Your task to perform on an android device: turn on data saver in the chrome app Image 0: 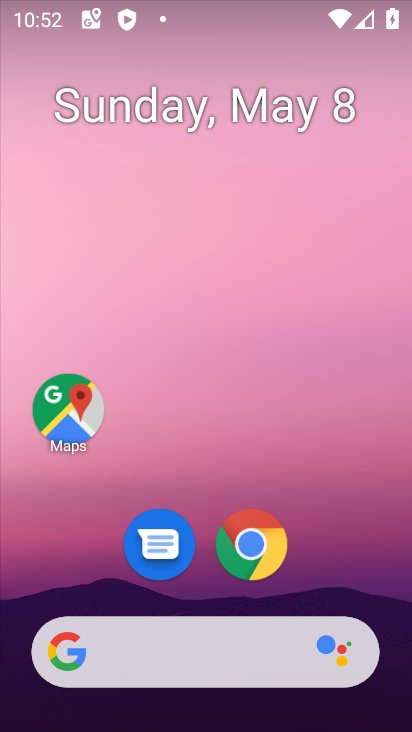
Step 0: click (259, 559)
Your task to perform on an android device: turn on data saver in the chrome app Image 1: 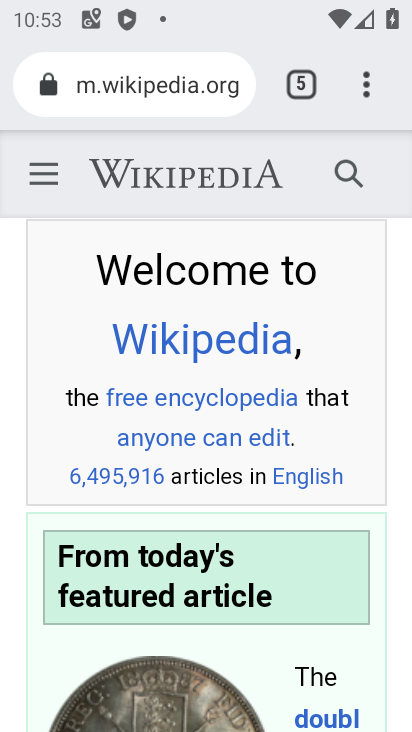
Step 1: click (364, 104)
Your task to perform on an android device: turn on data saver in the chrome app Image 2: 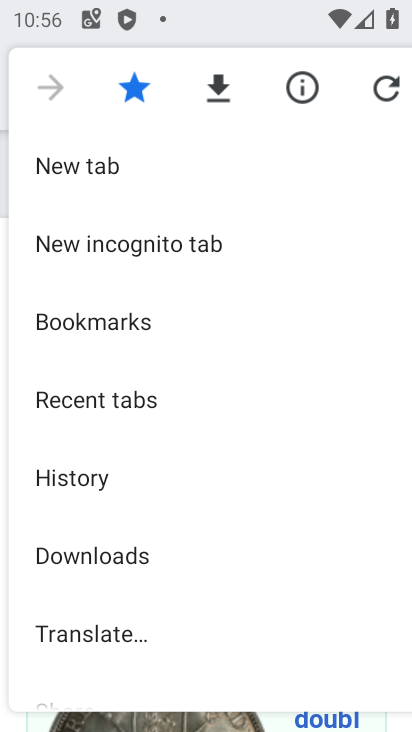
Step 2: drag from (242, 506) to (253, 225)
Your task to perform on an android device: turn on data saver in the chrome app Image 3: 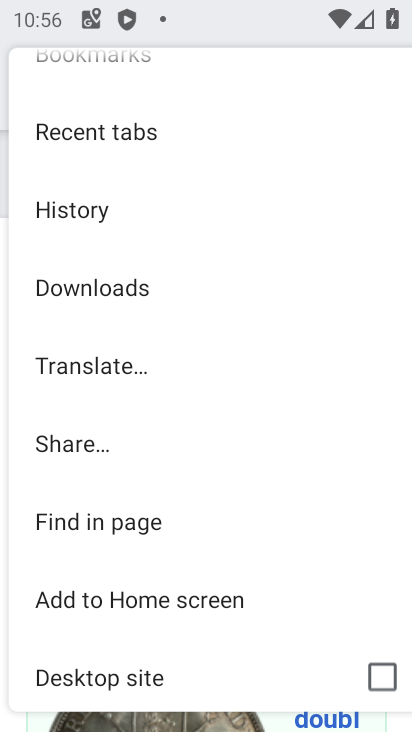
Step 3: drag from (151, 679) to (210, 523)
Your task to perform on an android device: turn on data saver in the chrome app Image 4: 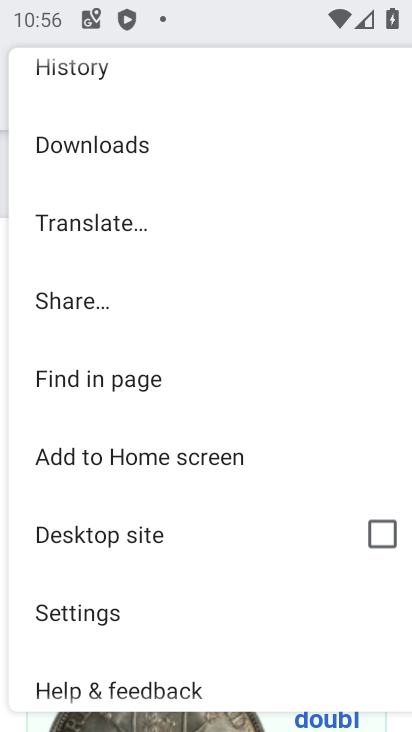
Step 4: click (201, 589)
Your task to perform on an android device: turn on data saver in the chrome app Image 5: 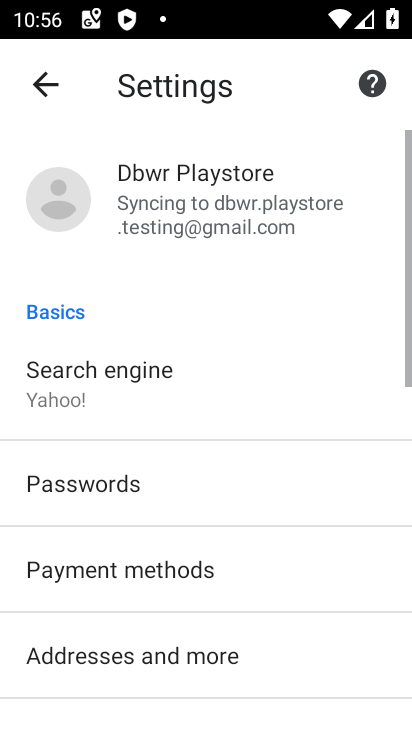
Step 5: drag from (178, 607) to (182, 417)
Your task to perform on an android device: turn on data saver in the chrome app Image 6: 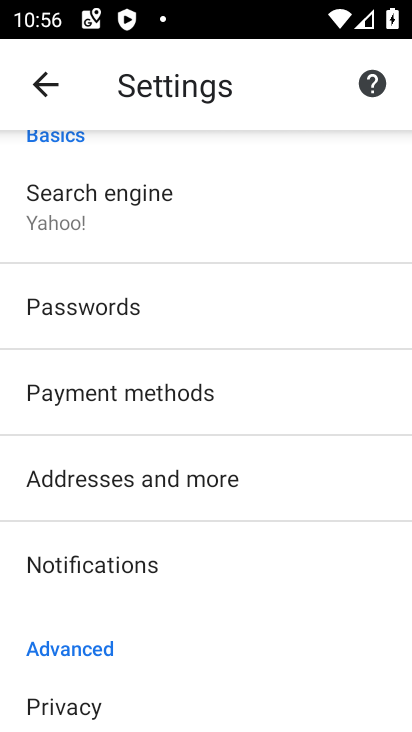
Step 6: drag from (133, 649) to (133, 295)
Your task to perform on an android device: turn on data saver in the chrome app Image 7: 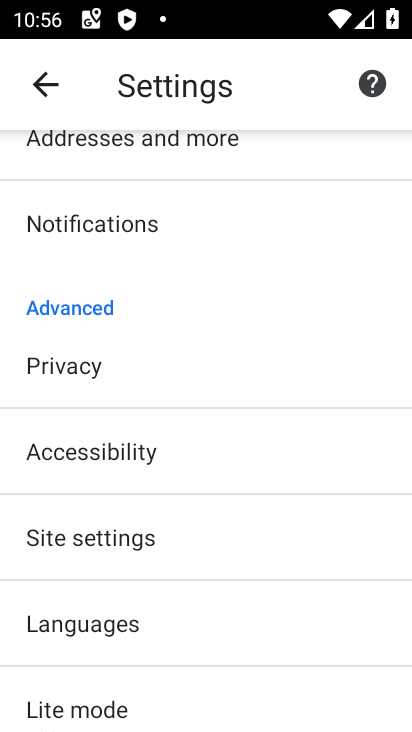
Step 7: click (173, 543)
Your task to perform on an android device: turn on data saver in the chrome app Image 8: 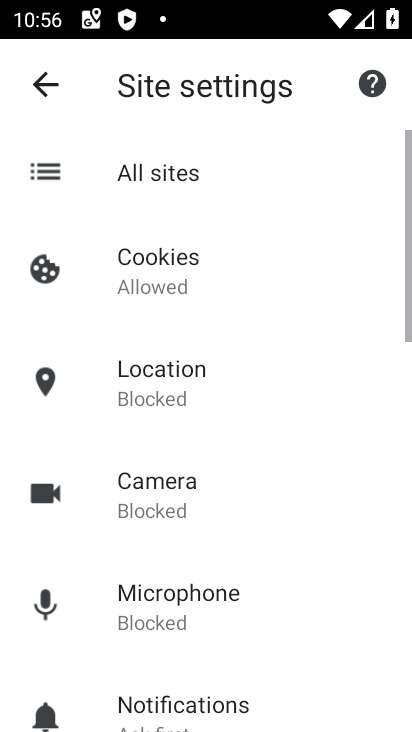
Step 8: drag from (181, 635) to (195, 324)
Your task to perform on an android device: turn on data saver in the chrome app Image 9: 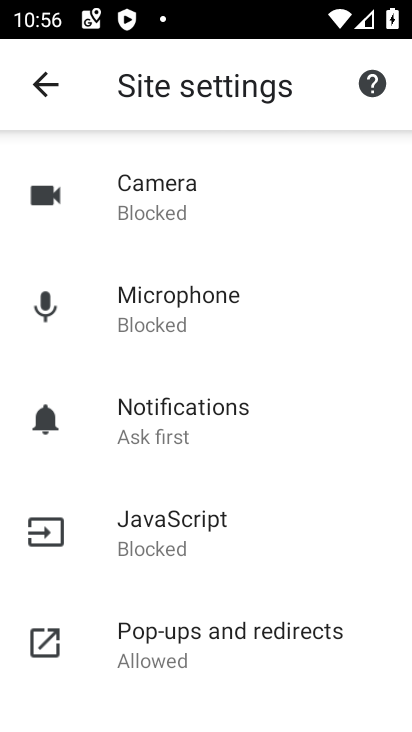
Step 9: click (228, 619)
Your task to perform on an android device: turn on data saver in the chrome app Image 10: 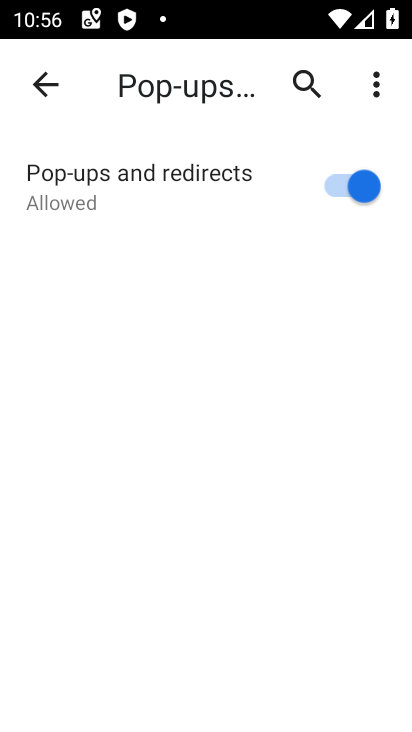
Step 10: click (20, 91)
Your task to perform on an android device: turn on data saver in the chrome app Image 11: 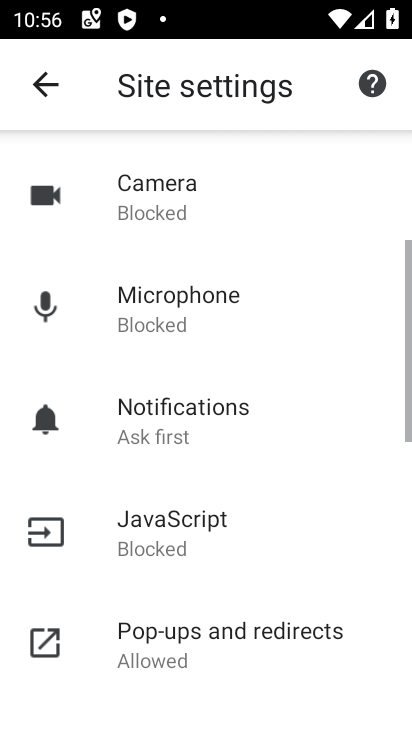
Step 11: click (20, 91)
Your task to perform on an android device: turn on data saver in the chrome app Image 12: 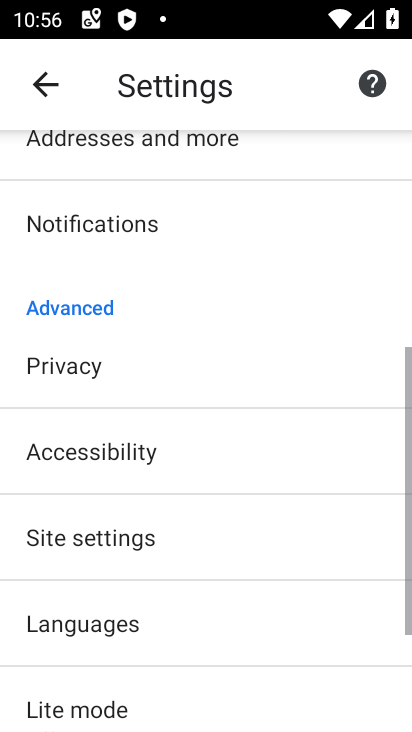
Step 12: drag from (157, 653) to (191, 419)
Your task to perform on an android device: turn on data saver in the chrome app Image 13: 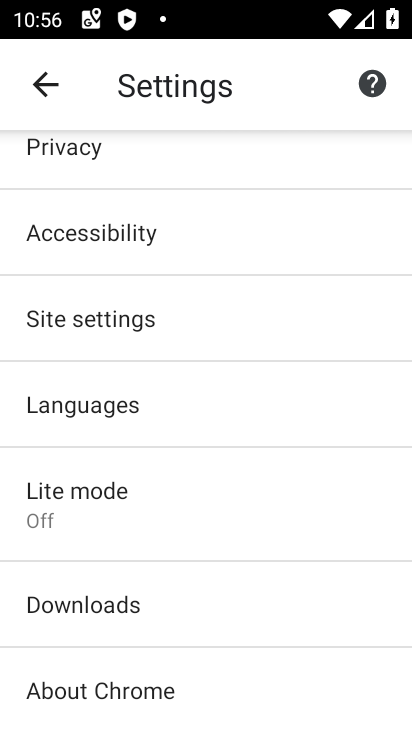
Step 13: click (172, 533)
Your task to perform on an android device: turn on data saver in the chrome app Image 14: 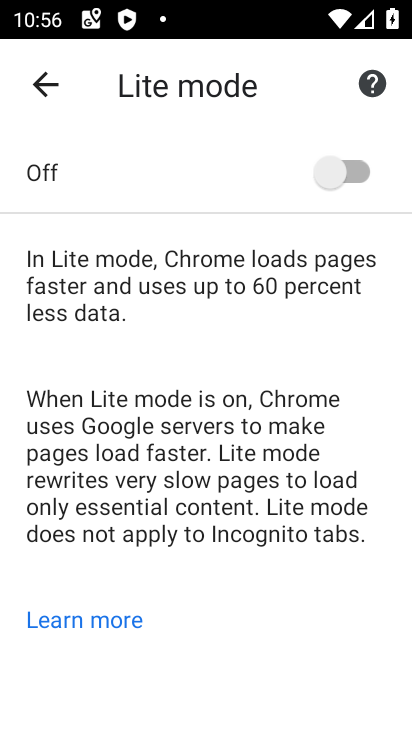
Step 14: click (345, 161)
Your task to perform on an android device: turn on data saver in the chrome app Image 15: 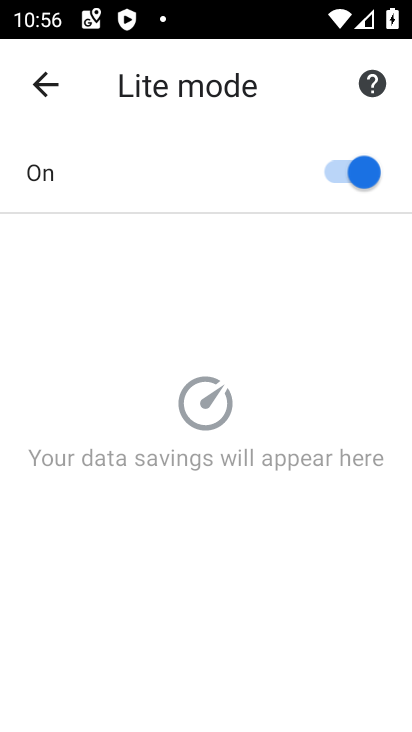
Step 15: task complete